Your task to perform on an android device: make emails show in primary in the gmail app Image 0: 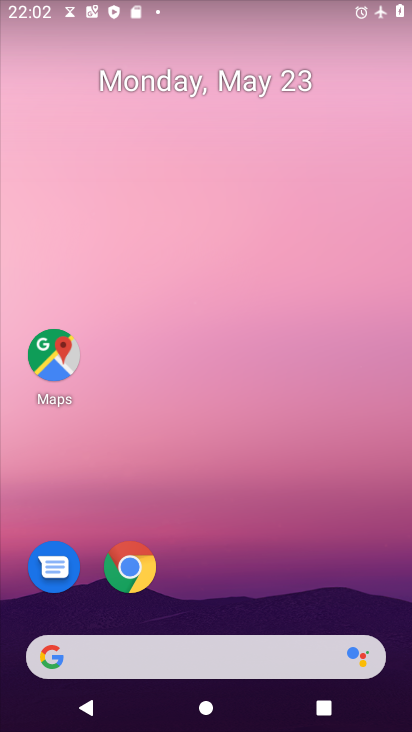
Step 0: drag from (331, 586) to (342, 280)
Your task to perform on an android device: make emails show in primary in the gmail app Image 1: 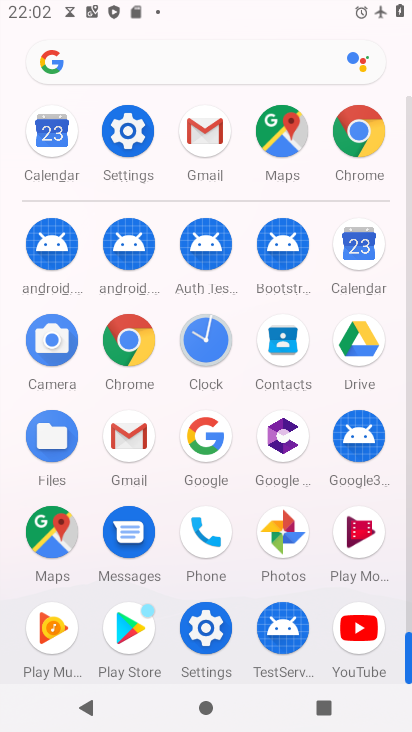
Step 1: click (122, 435)
Your task to perform on an android device: make emails show in primary in the gmail app Image 2: 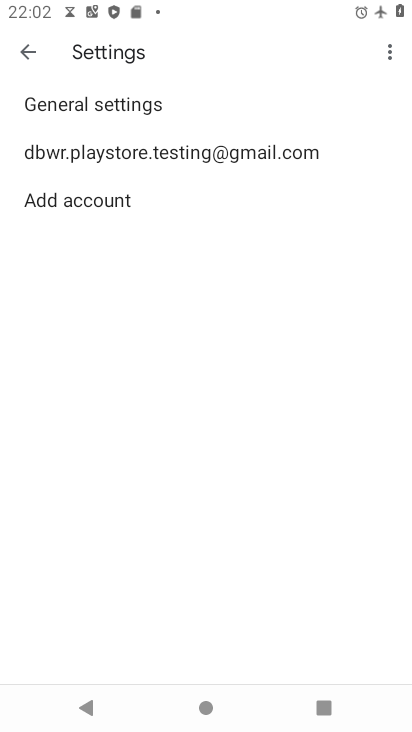
Step 2: click (24, 52)
Your task to perform on an android device: make emails show in primary in the gmail app Image 3: 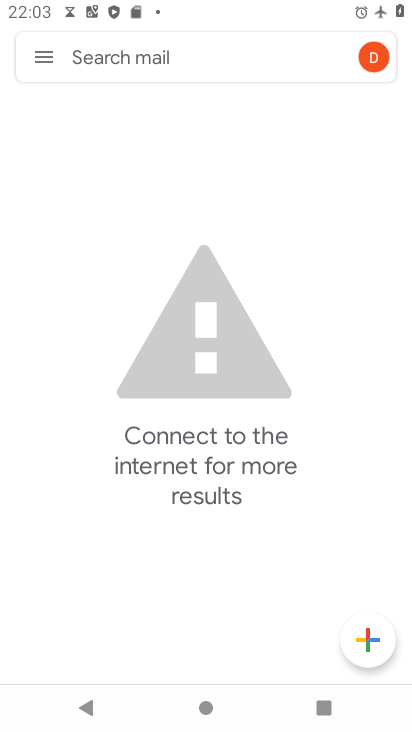
Step 3: click (40, 52)
Your task to perform on an android device: make emails show in primary in the gmail app Image 4: 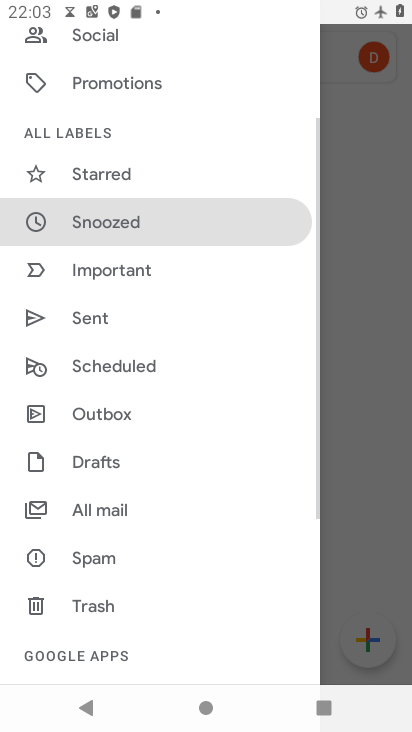
Step 4: drag from (160, 629) to (193, 238)
Your task to perform on an android device: make emails show in primary in the gmail app Image 5: 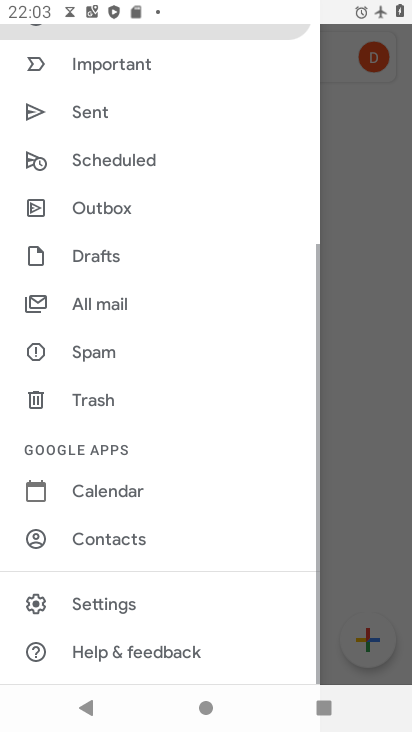
Step 5: click (103, 603)
Your task to perform on an android device: make emails show in primary in the gmail app Image 6: 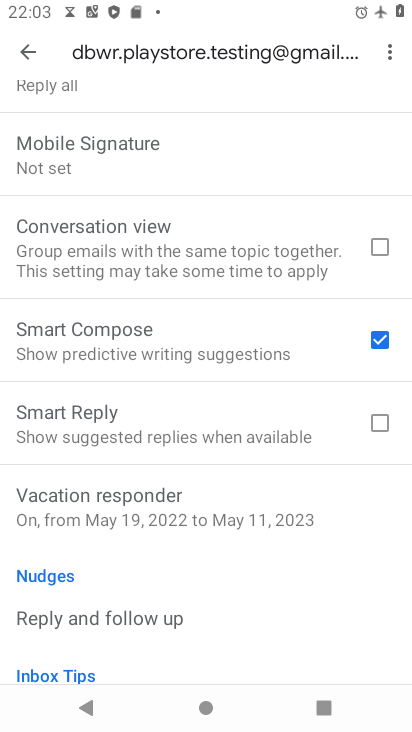
Step 6: task complete